Your task to perform on an android device: turn on the 12-hour format for clock Image 0: 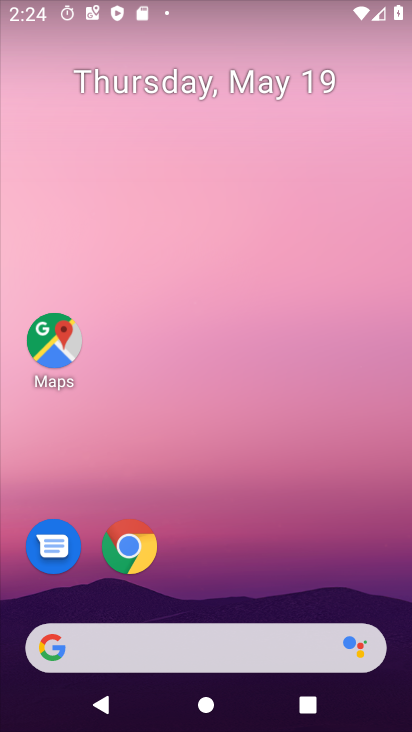
Step 0: drag from (156, 599) to (321, 32)
Your task to perform on an android device: turn on the 12-hour format for clock Image 1: 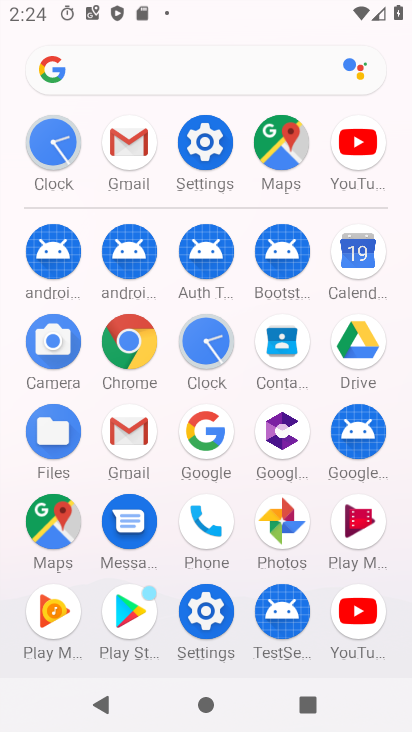
Step 1: click (219, 348)
Your task to perform on an android device: turn on the 12-hour format for clock Image 2: 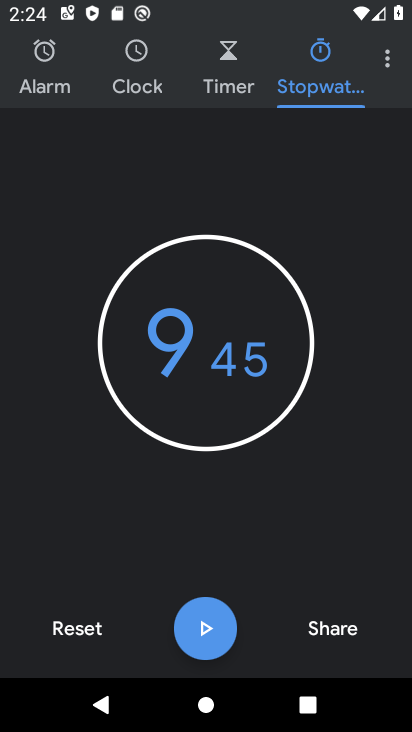
Step 2: click (397, 66)
Your task to perform on an android device: turn on the 12-hour format for clock Image 3: 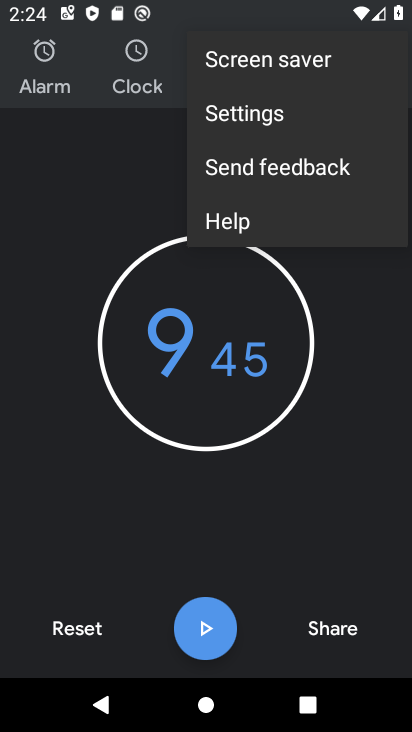
Step 3: click (322, 122)
Your task to perform on an android device: turn on the 12-hour format for clock Image 4: 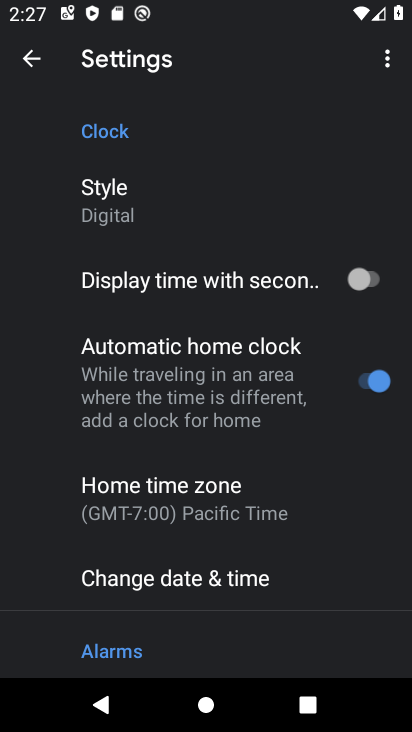
Step 4: task complete